Your task to perform on an android device: change text size in settings app Image 0: 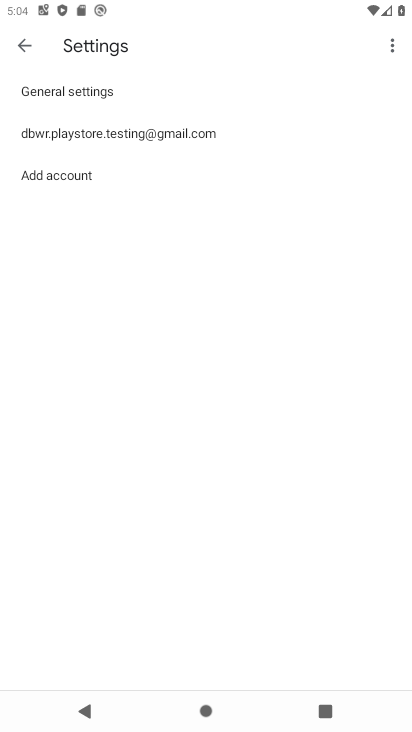
Step 0: press back button
Your task to perform on an android device: change text size in settings app Image 1: 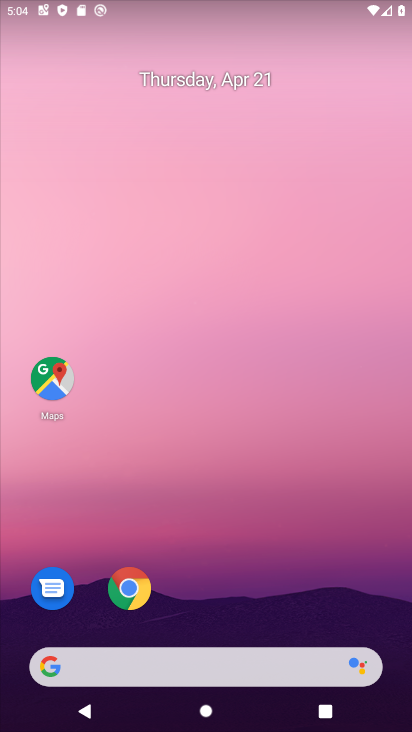
Step 1: drag from (244, 507) to (351, 67)
Your task to perform on an android device: change text size in settings app Image 2: 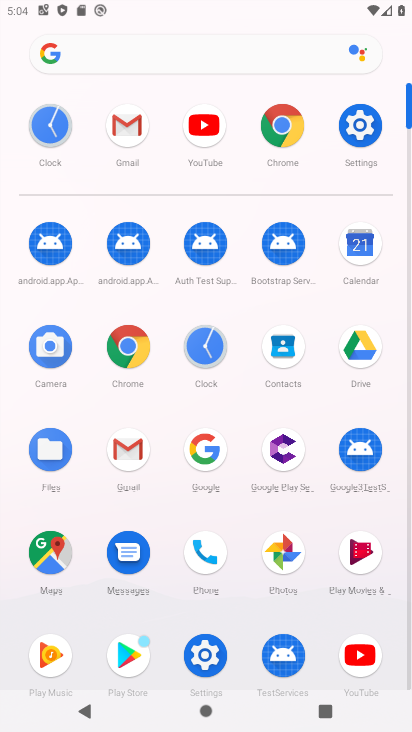
Step 2: click (358, 122)
Your task to perform on an android device: change text size in settings app Image 3: 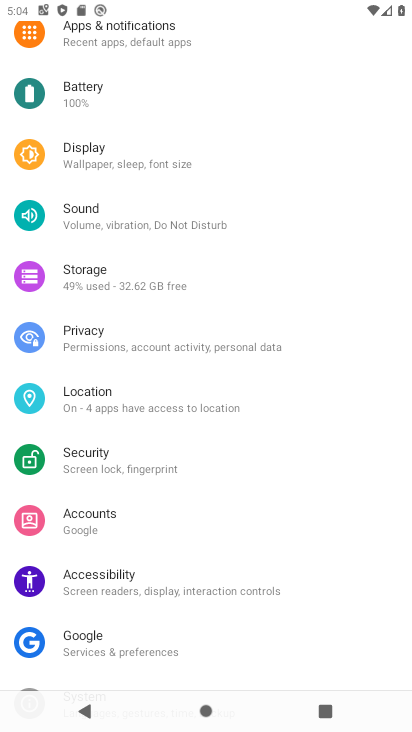
Step 3: drag from (227, 91) to (214, 674)
Your task to perform on an android device: change text size in settings app Image 4: 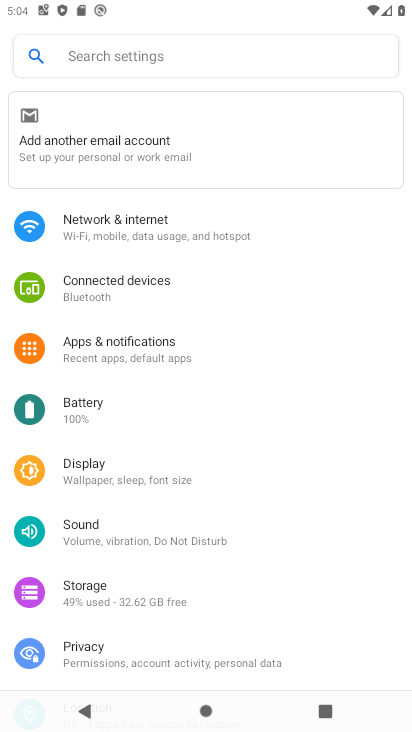
Step 4: click (124, 52)
Your task to perform on an android device: change text size in settings app Image 5: 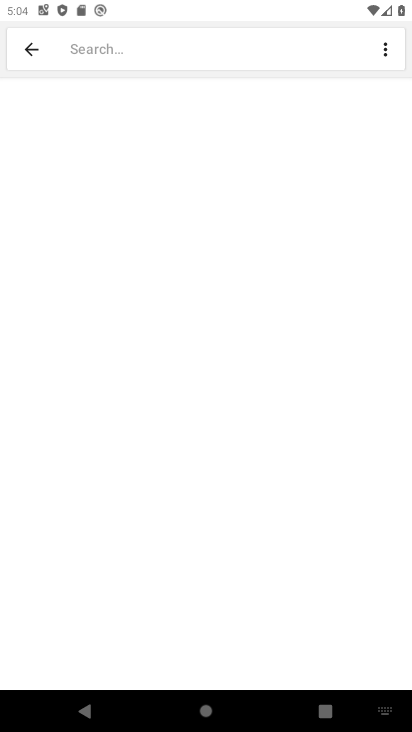
Step 5: type "text size"
Your task to perform on an android device: change text size in settings app Image 6: 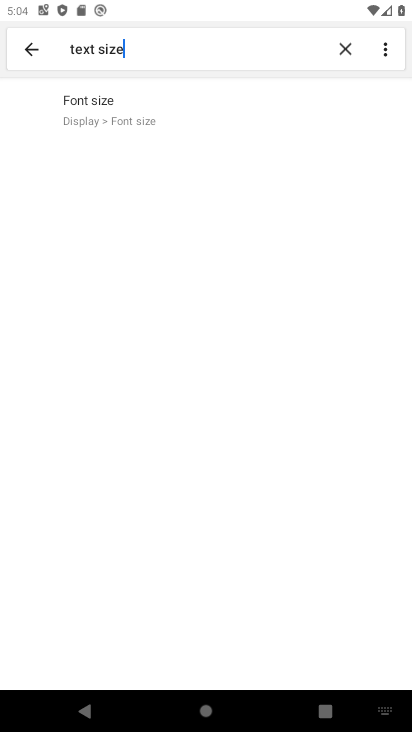
Step 6: click (107, 100)
Your task to perform on an android device: change text size in settings app Image 7: 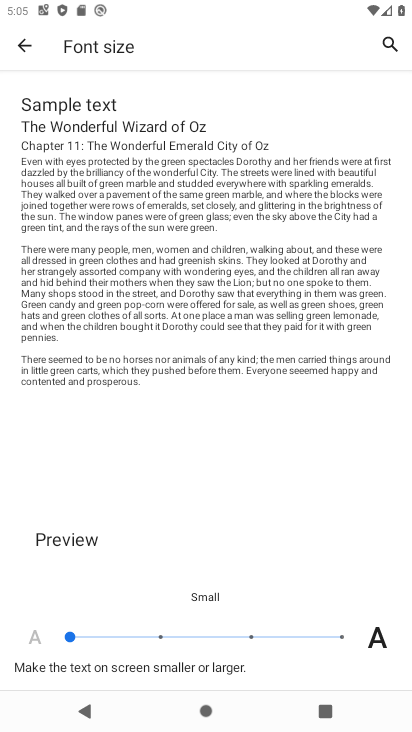
Step 7: task complete